Your task to perform on an android device: Go to location settings Image 0: 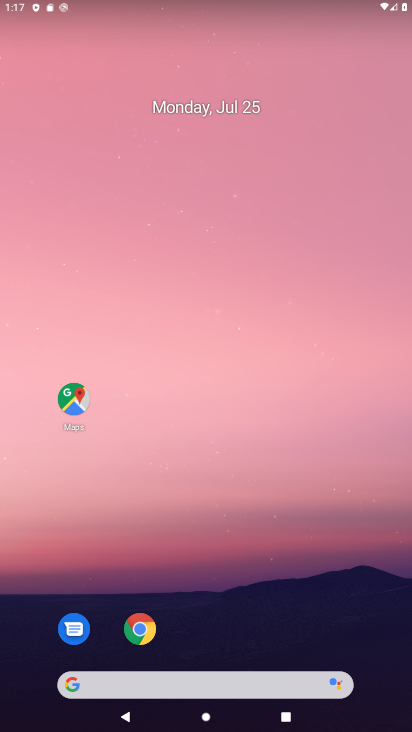
Step 0: click (252, 191)
Your task to perform on an android device: Go to location settings Image 1: 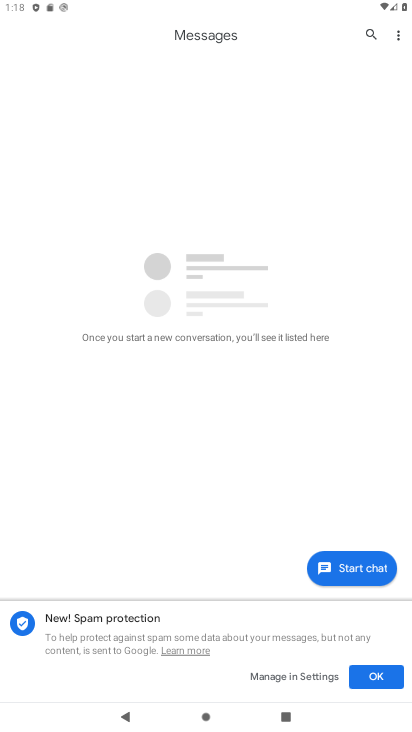
Step 1: press home button
Your task to perform on an android device: Go to location settings Image 2: 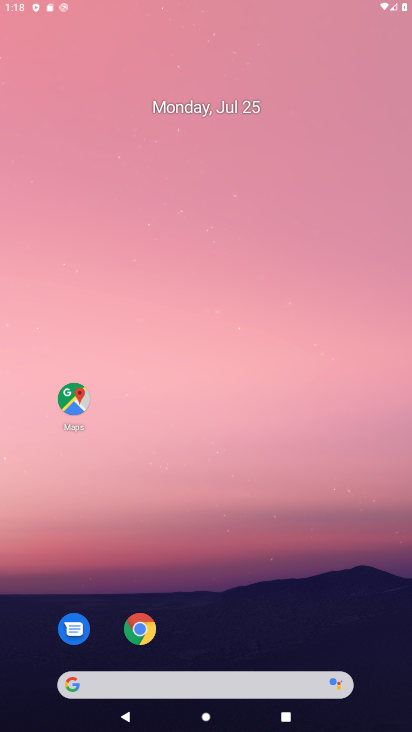
Step 2: drag from (187, 592) to (244, 67)
Your task to perform on an android device: Go to location settings Image 3: 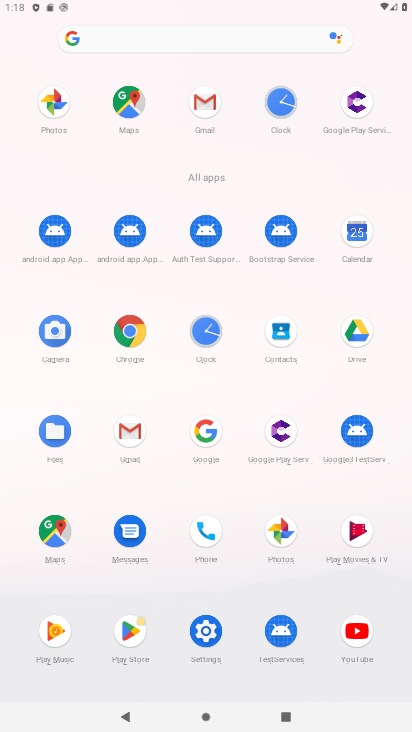
Step 3: click (211, 624)
Your task to perform on an android device: Go to location settings Image 4: 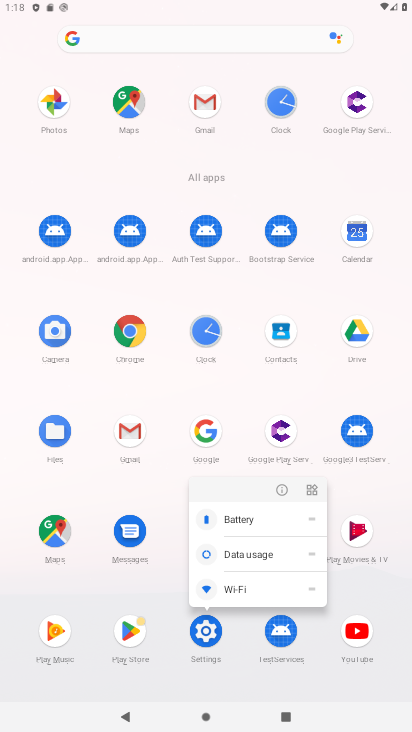
Step 4: click (282, 492)
Your task to perform on an android device: Go to location settings Image 5: 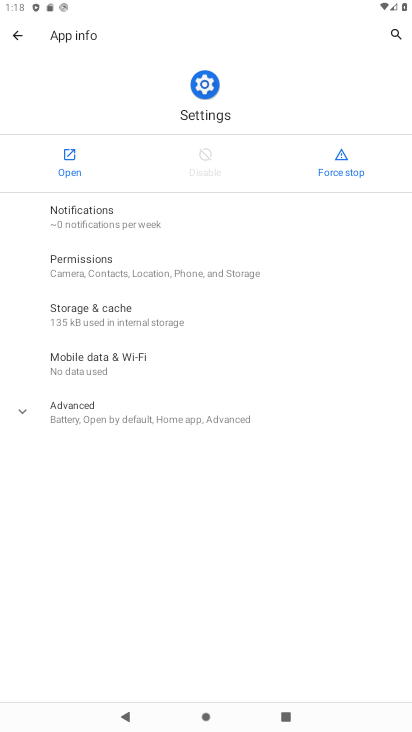
Step 5: click (82, 157)
Your task to perform on an android device: Go to location settings Image 6: 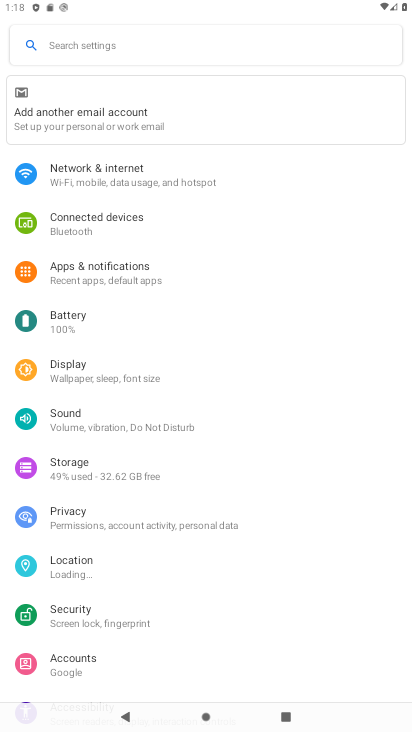
Step 6: click (97, 560)
Your task to perform on an android device: Go to location settings Image 7: 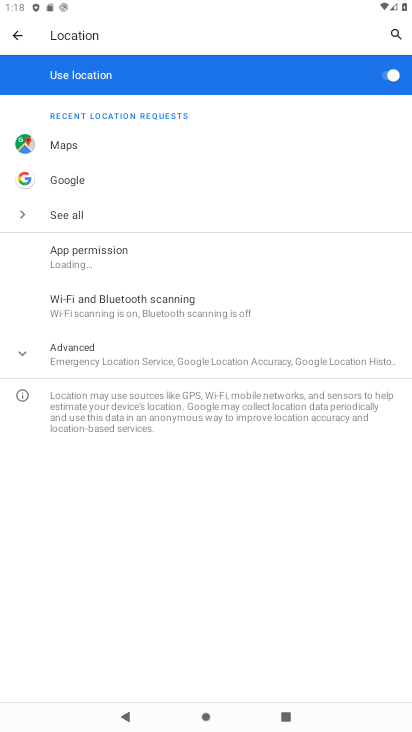
Step 7: drag from (228, 514) to (280, 132)
Your task to perform on an android device: Go to location settings Image 8: 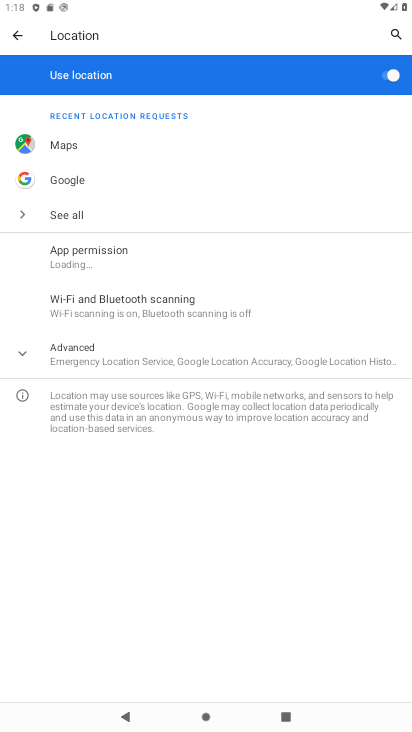
Step 8: click (107, 367)
Your task to perform on an android device: Go to location settings Image 9: 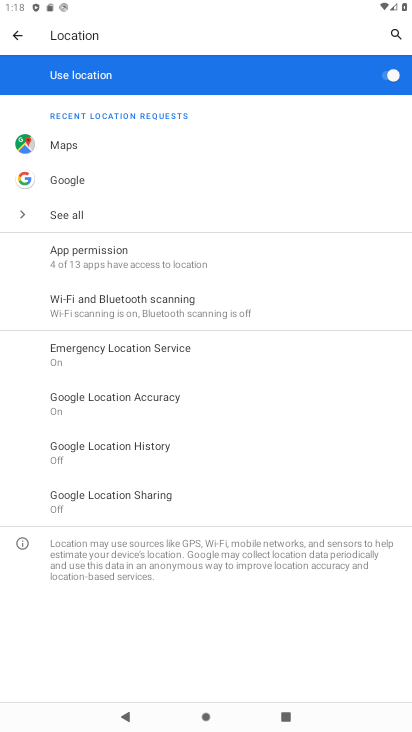
Step 9: task complete